Your task to perform on an android device: Is it going to rain today? Image 0: 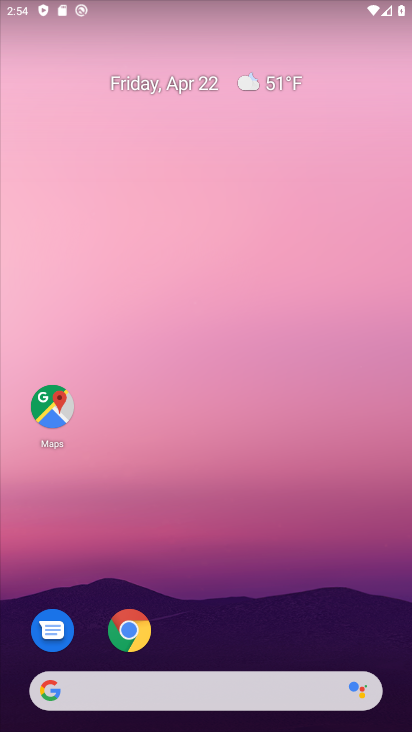
Step 0: drag from (172, 126) to (163, 47)
Your task to perform on an android device: Is it going to rain today? Image 1: 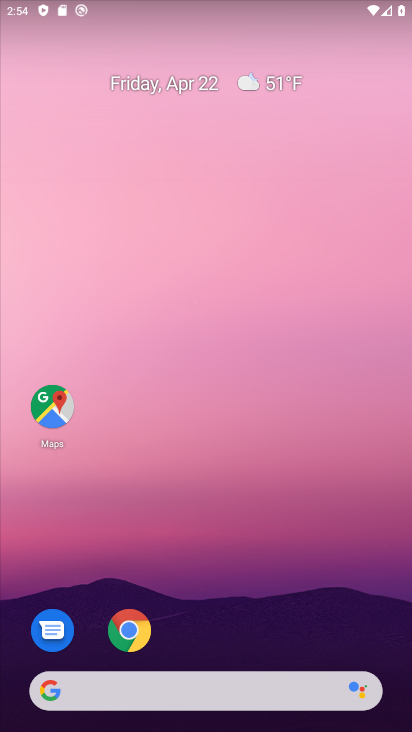
Step 1: drag from (355, 544) to (308, 61)
Your task to perform on an android device: Is it going to rain today? Image 2: 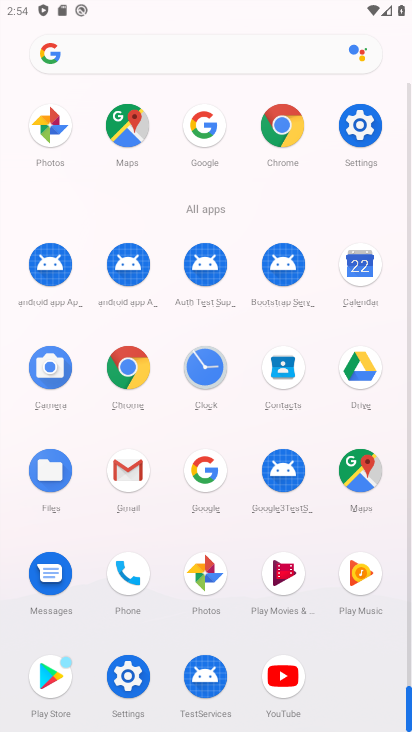
Step 2: drag from (9, 588) to (9, 418)
Your task to perform on an android device: Is it going to rain today? Image 3: 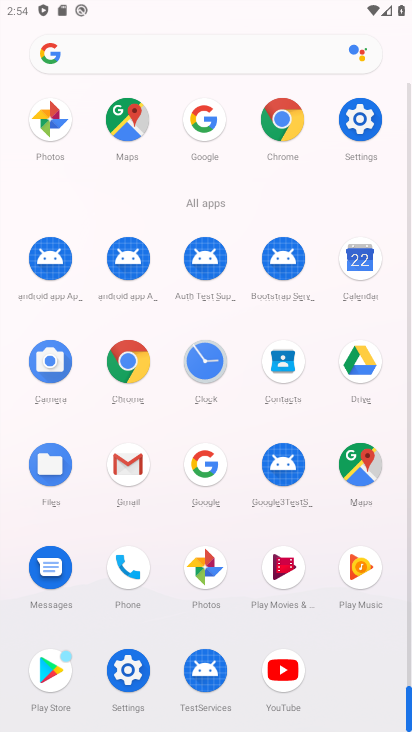
Step 3: click (163, 54)
Your task to perform on an android device: Is it going to rain today? Image 4: 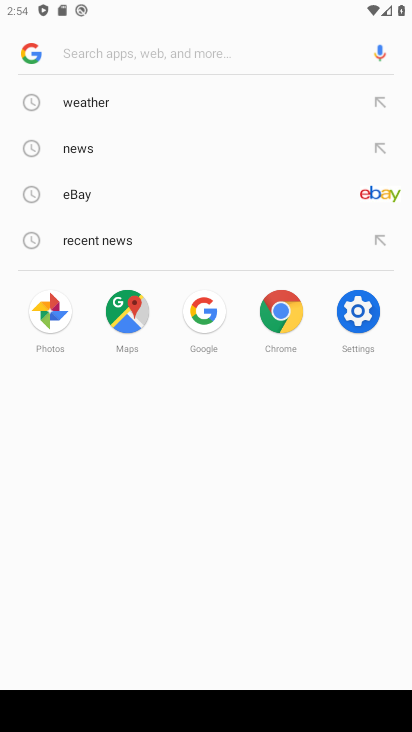
Step 4: type "Is it going to rain today?"
Your task to perform on an android device: Is it going to rain today? Image 5: 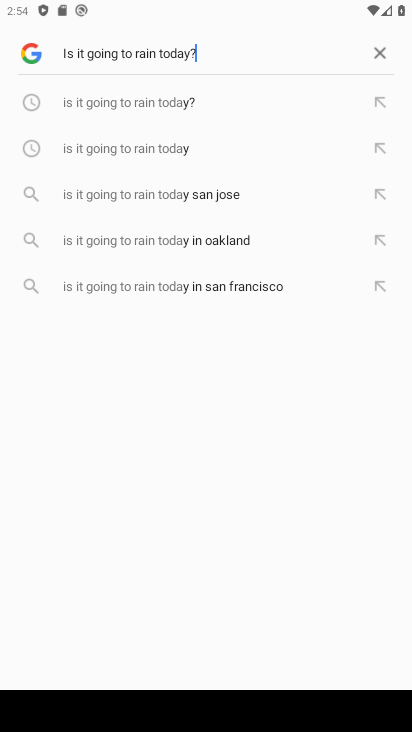
Step 5: type ""
Your task to perform on an android device: Is it going to rain today? Image 6: 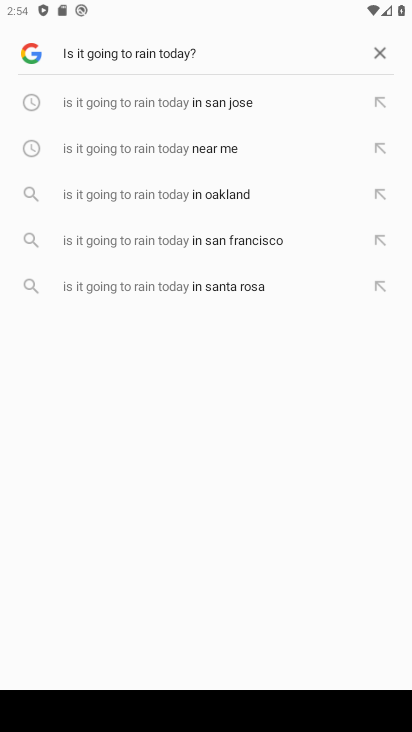
Step 6: click (203, 149)
Your task to perform on an android device: Is it going to rain today? Image 7: 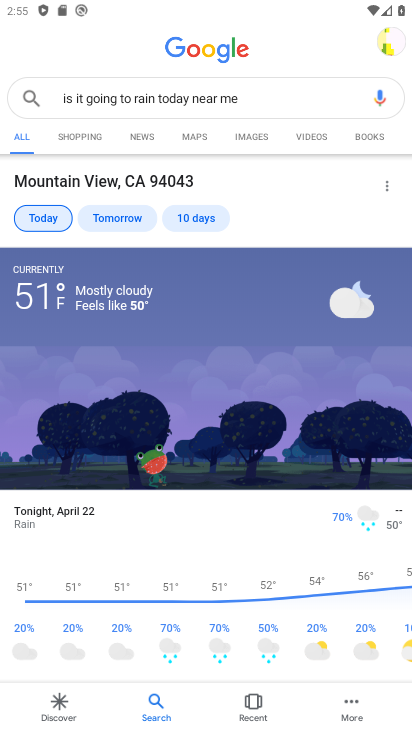
Step 7: task complete